Your task to perform on an android device: Open Youtube and go to "Your channel" Image 0: 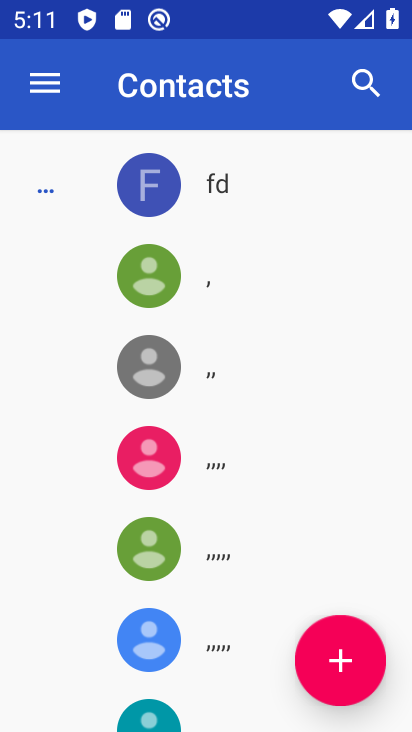
Step 0: press home button
Your task to perform on an android device: Open Youtube and go to "Your channel" Image 1: 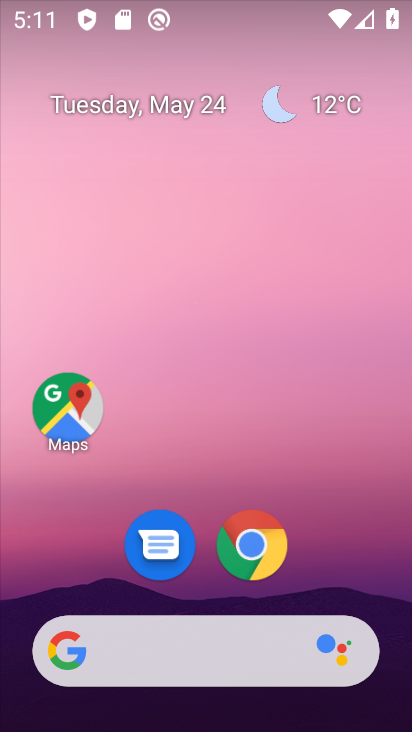
Step 1: drag from (191, 625) to (191, 312)
Your task to perform on an android device: Open Youtube and go to "Your channel" Image 2: 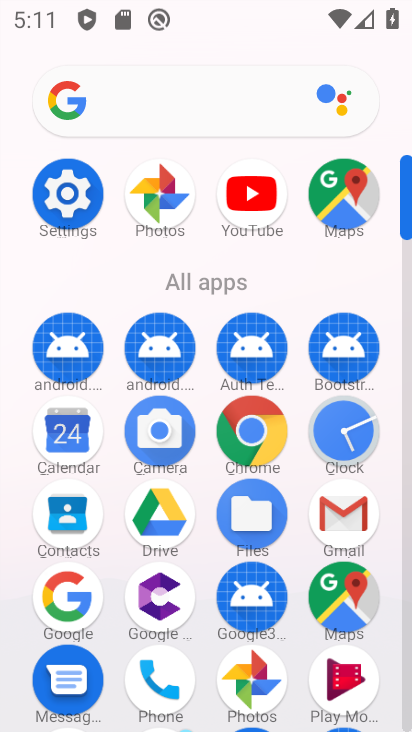
Step 2: click (258, 200)
Your task to perform on an android device: Open Youtube and go to "Your channel" Image 3: 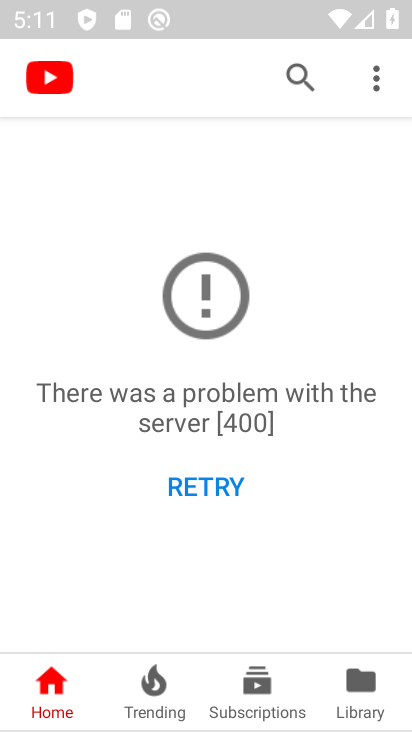
Step 3: click (374, 87)
Your task to perform on an android device: Open Youtube and go to "Your channel" Image 4: 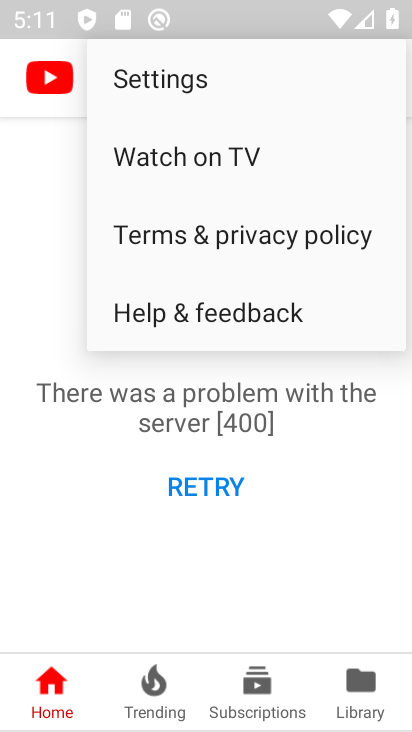
Step 4: click (182, 74)
Your task to perform on an android device: Open Youtube and go to "Your channel" Image 5: 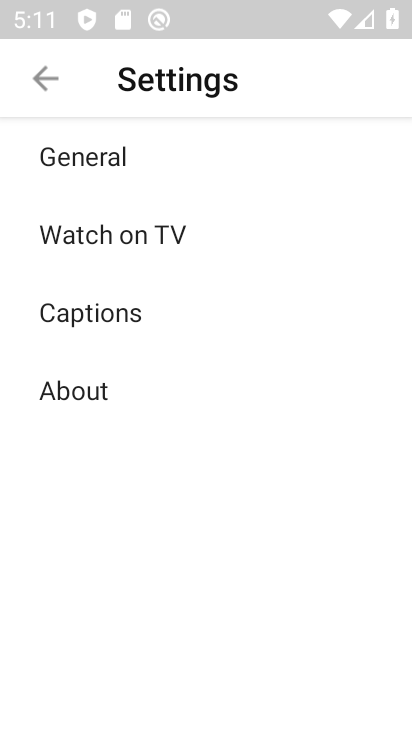
Step 5: task complete